Your task to perform on an android device: clear history in the chrome app Image 0: 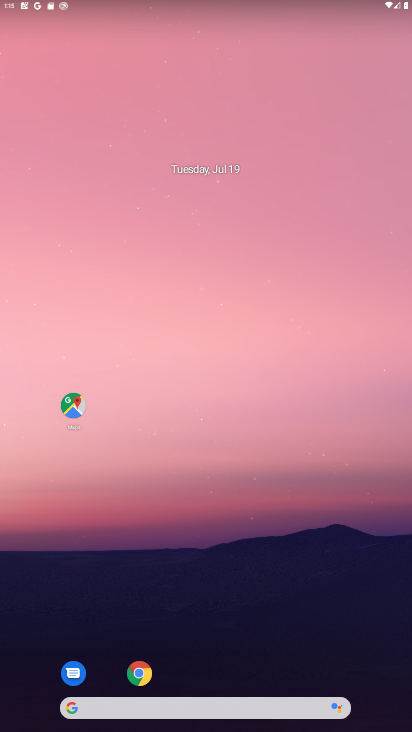
Step 0: click (141, 681)
Your task to perform on an android device: clear history in the chrome app Image 1: 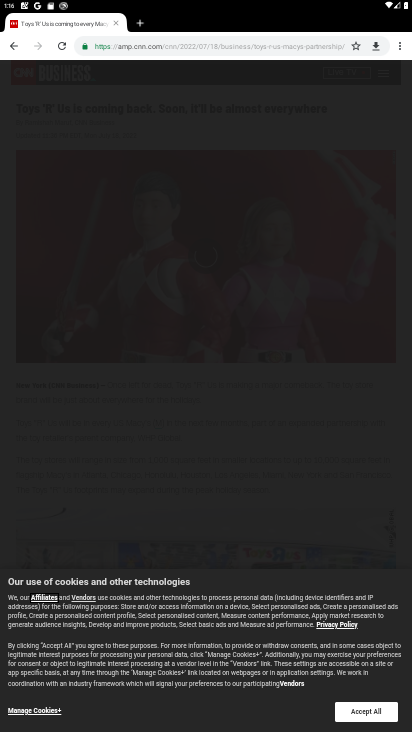
Step 1: click (401, 49)
Your task to perform on an android device: clear history in the chrome app Image 2: 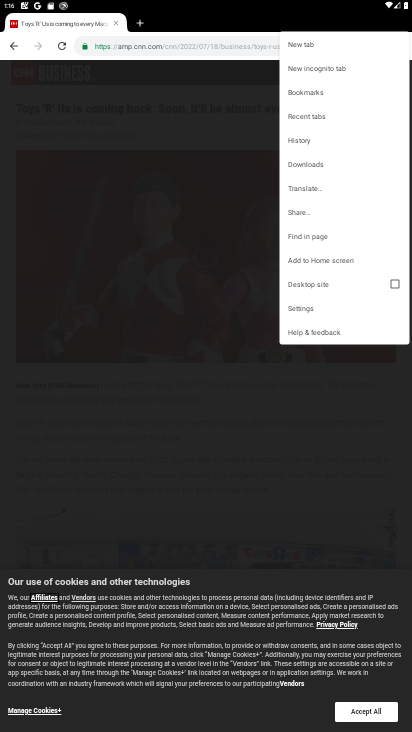
Step 2: click (315, 140)
Your task to perform on an android device: clear history in the chrome app Image 3: 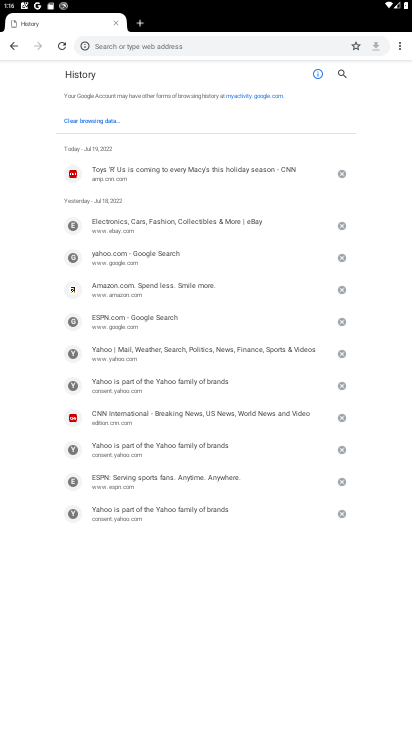
Step 3: click (76, 115)
Your task to perform on an android device: clear history in the chrome app Image 4: 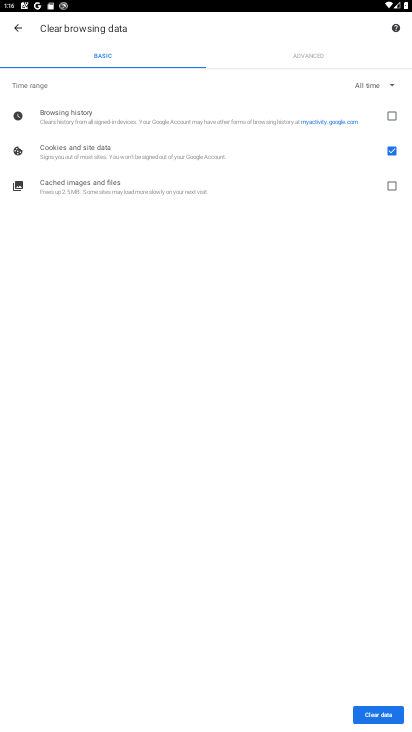
Step 4: click (378, 715)
Your task to perform on an android device: clear history in the chrome app Image 5: 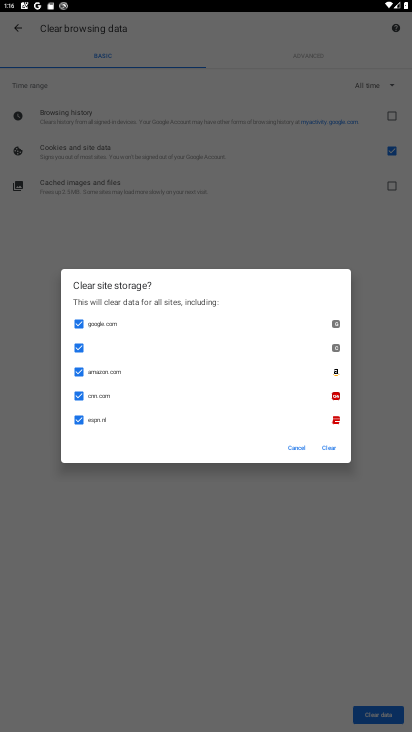
Step 5: click (329, 446)
Your task to perform on an android device: clear history in the chrome app Image 6: 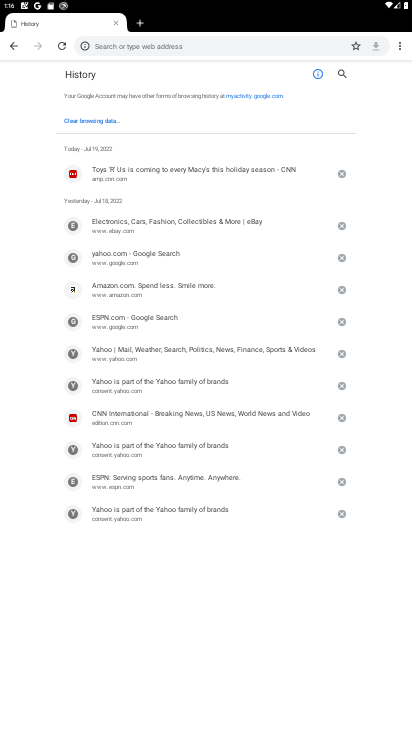
Step 6: task complete